Your task to perform on an android device: turn off priority inbox in the gmail app Image 0: 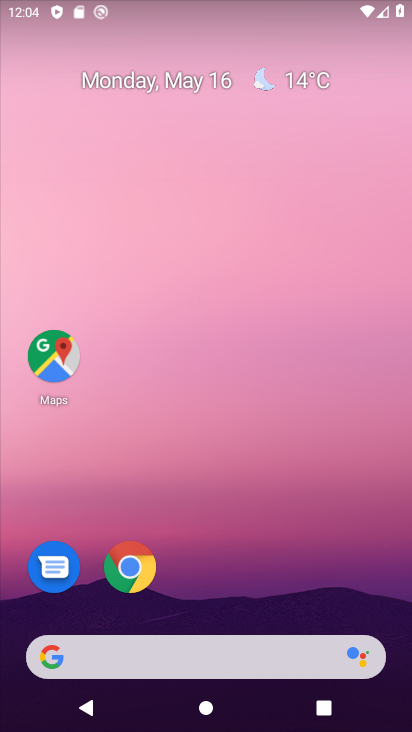
Step 0: drag from (274, 481) to (186, 57)
Your task to perform on an android device: turn off priority inbox in the gmail app Image 1: 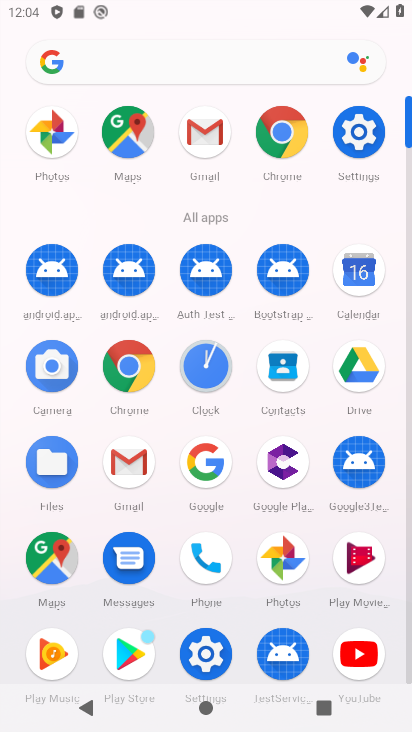
Step 1: click (212, 136)
Your task to perform on an android device: turn off priority inbox in the gmail app Image 2: 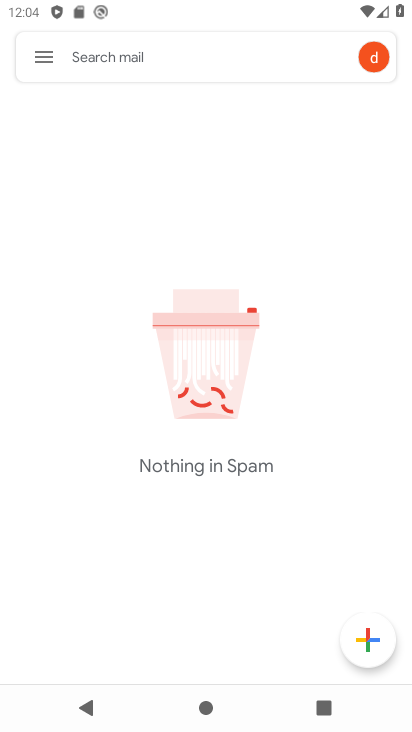
Step 2: click (47, 54)
Your task to perform on an android device: turn off priority inbox in the gmail app Image 3: 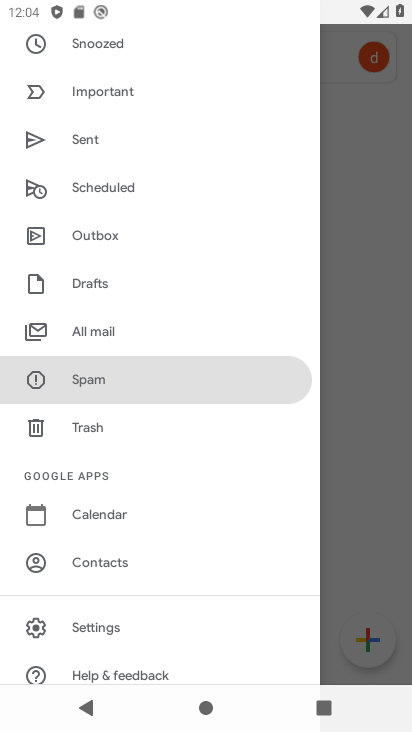
Step 3: click (104, 625)
Your task to perform on an android device: turn off priority inbox in the gmail app Image 4: 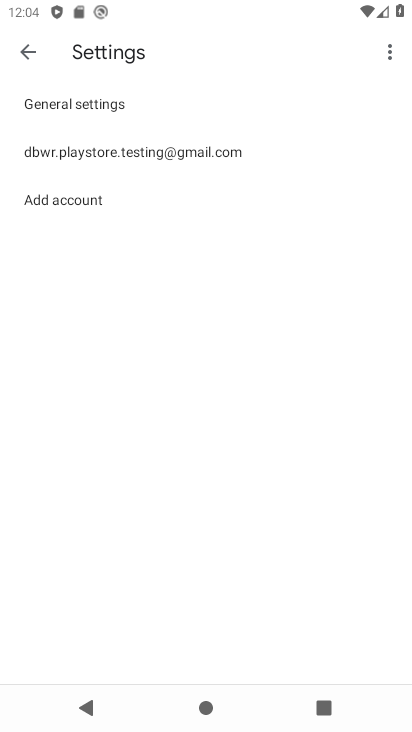
Step 4: click (91, 144)
Your task to perform on an android device: turn off priority inbox in the gmail app Image 5: 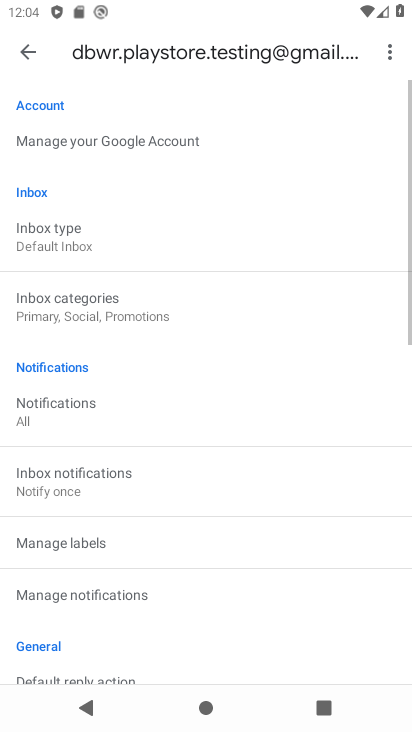
Step 5: click (56, 241)
Your task to perform on an android device: turn off priority inbox in the gmail app Image 6: 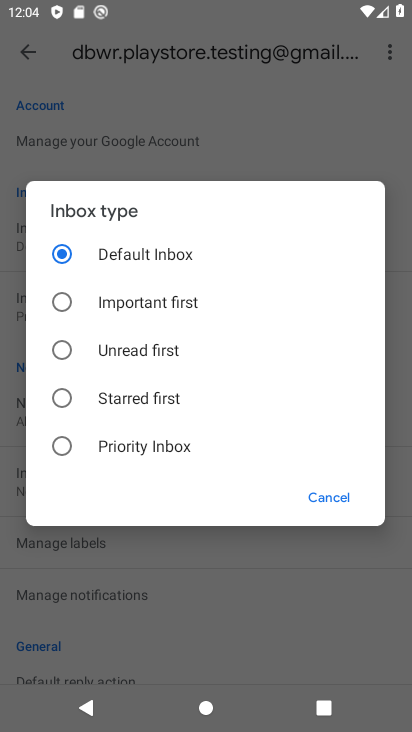
Step 6: click (60, 444)
Your task to perform on an android device: turn off priority inbox in the gmail app Image 7: 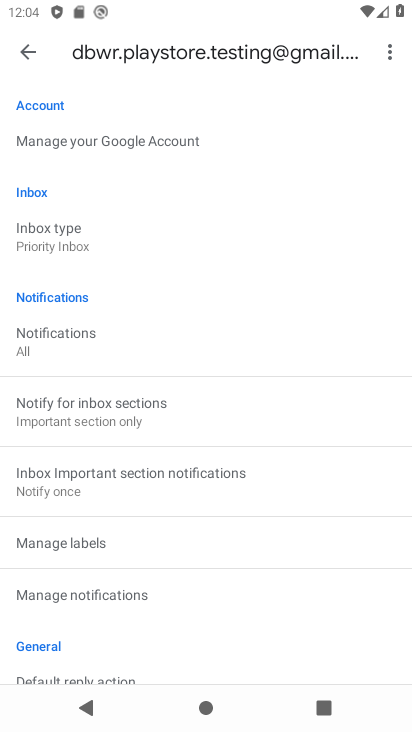
Step 7: task complete